Your task to perform on an android device: turn notification dots on Image 0: 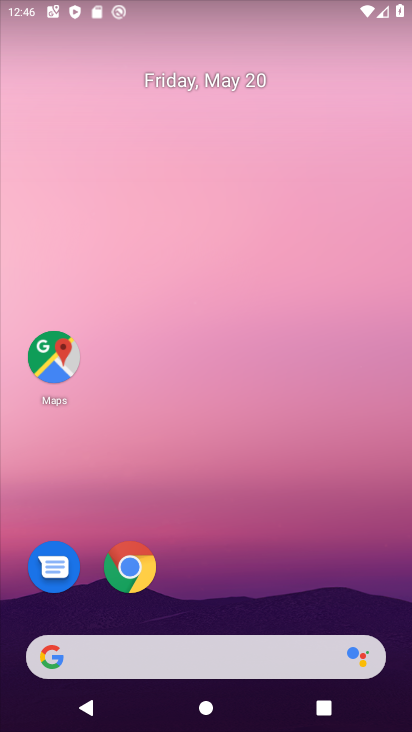
Step 0: press home button
Your task to perform on an android device: turn notification dots on Image 1: 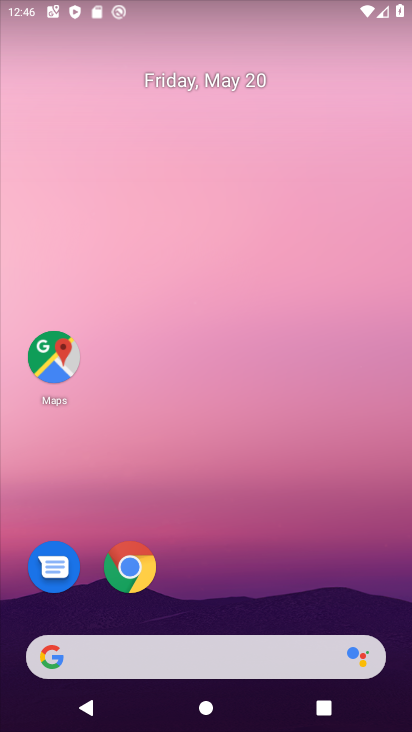
Step 1: drag from (136, 656) to (283, 159)
Your task to perform on an android device: turn notification dots on Image 2: 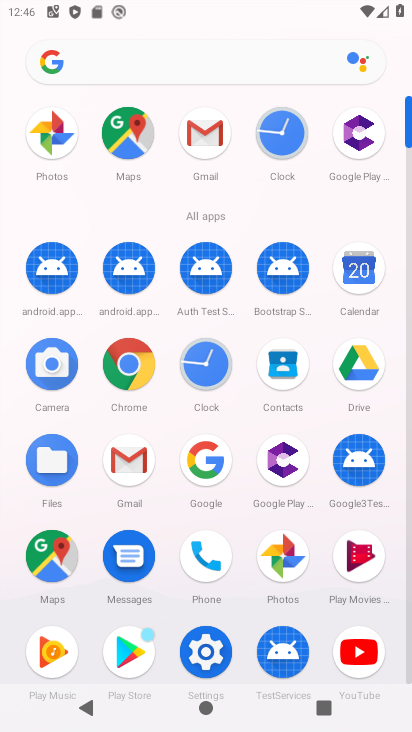
Step 2: click (204, 653)
Your task to perform on an android device: turn notification dots on Image 3: 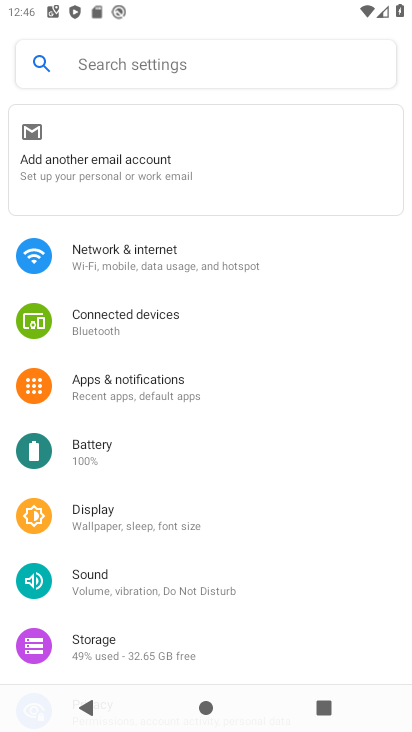
Step 3: click (104, 388)
Your task to perform on an android device: turn notification dots on Image 4: 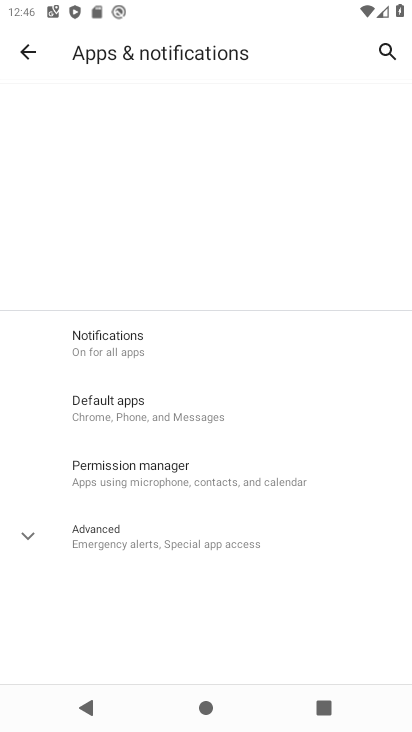
Step 4: click (140, 341)
Your task to perform on an android device: turn notification dots on Image 5: 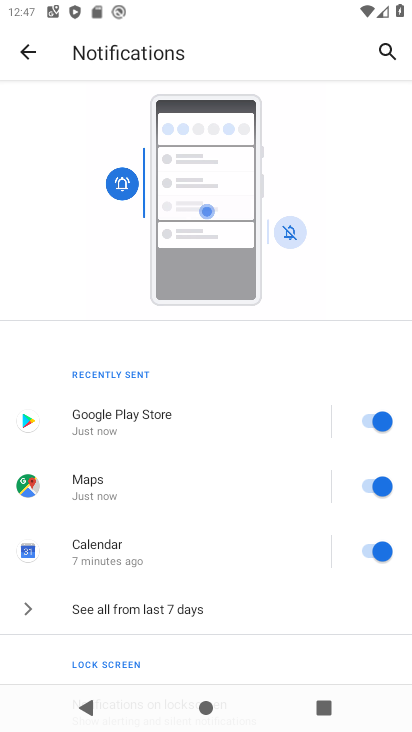
Step 5: drag from (192, 560) to (280, 119)
Your task to perform on an android device: turn notification dots on Image 6: 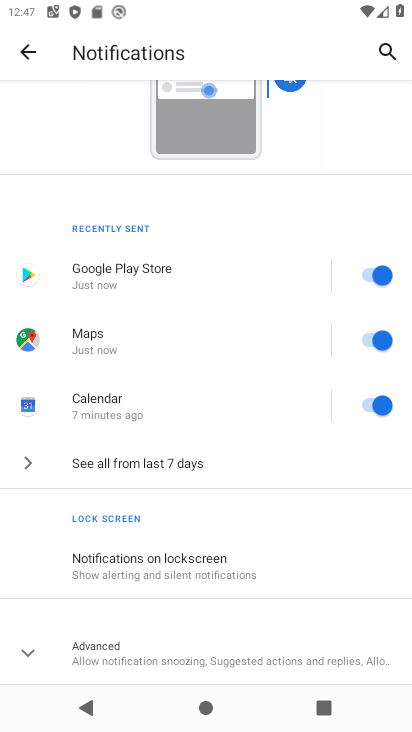
Step 6: click (179, 652)
Your task to perform on an android device: turn notification dots on Image 7: 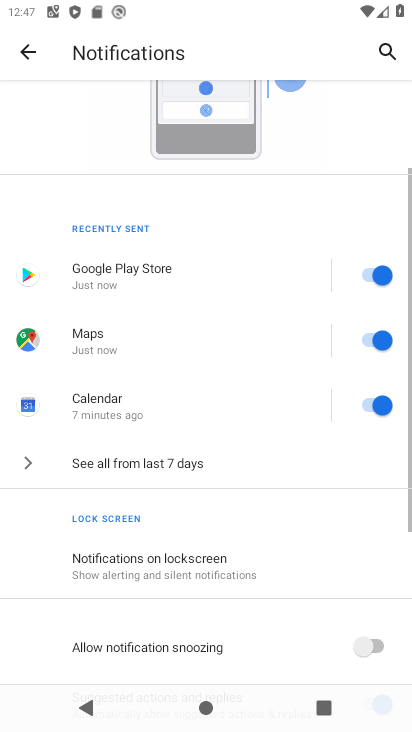
Step 7: task complete